Your task to perform on an android device: Find coffee shops on Maps Image 0: 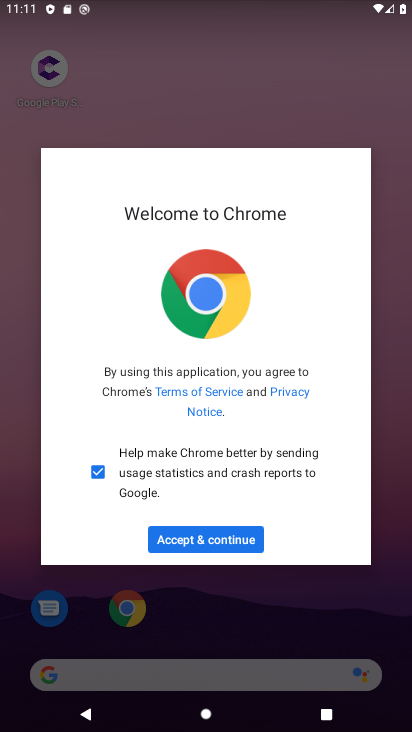
Step 0: press home button
Your task to perform on an android device: Find coffee shops on Maps Image 1: 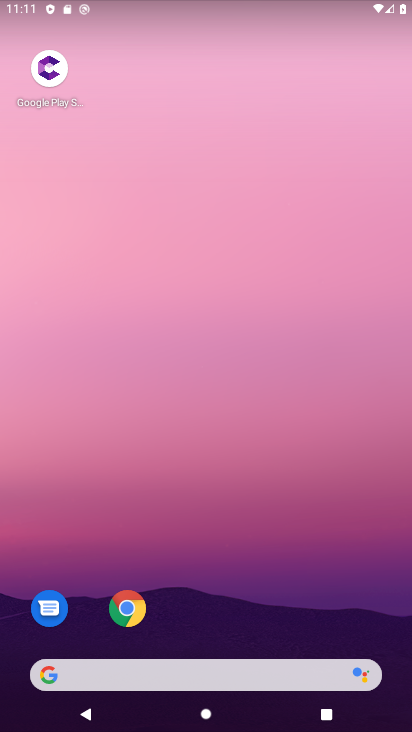
Step 1: drag from (215, 580) to (133, 45)
Your task to perform on an android device: Find coffee shops on Maps Image 2: 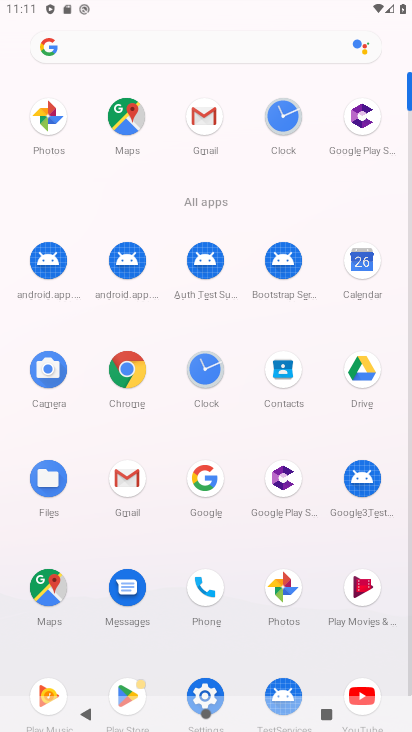
Step 2: click (121, 121)
Your task to perform on an android device: Find coffee shops on Maps Image 3: 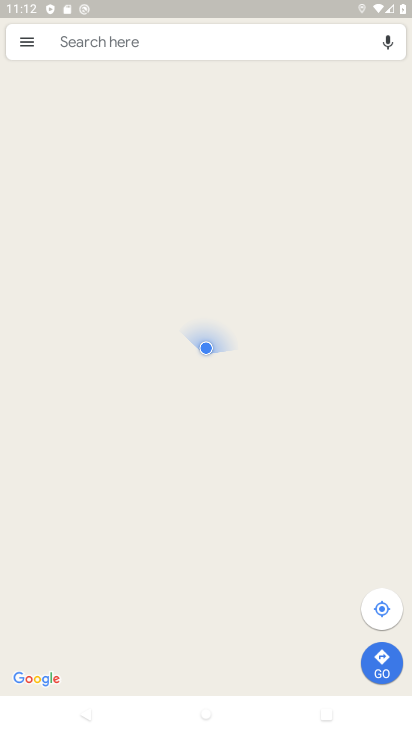
Step 3: click (292, 39)
Your task to perform on an android device: Find coffee shops on Maps Image 4: 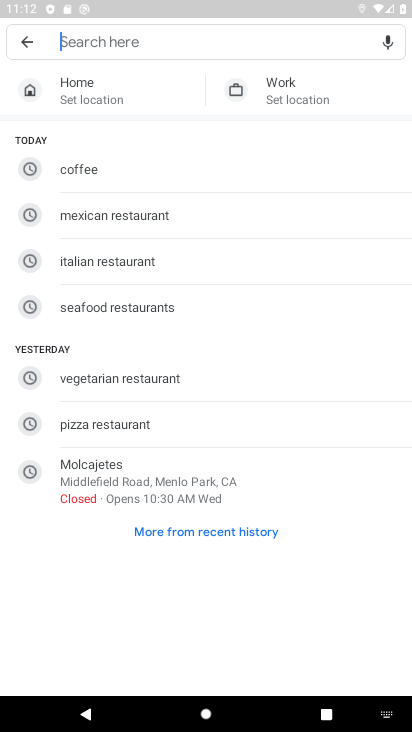
Step 4: type "coffee shops"
Your task to perform on an android device: Find coffee shops on Maps Image 5: 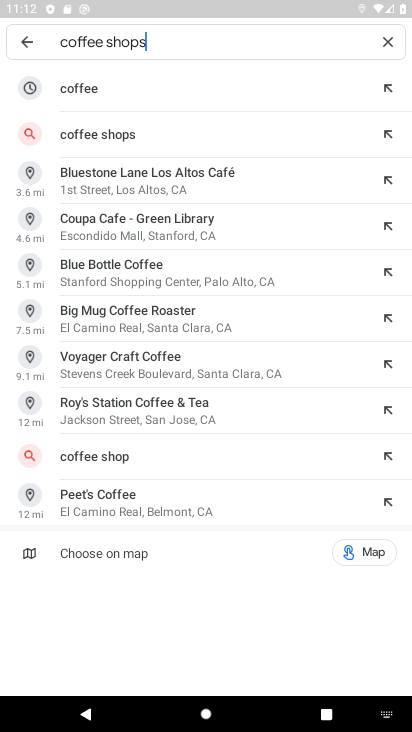
Step 5: click (124, 138)
Your task to perform on an android device: Find coffee shops on Maps Image 6: 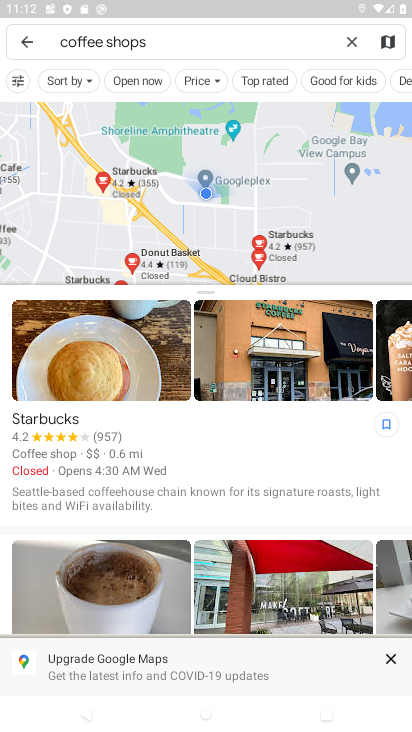
Step 6: task complete